Your task to perform on an android device: add a contact in the contacts app Image 0: 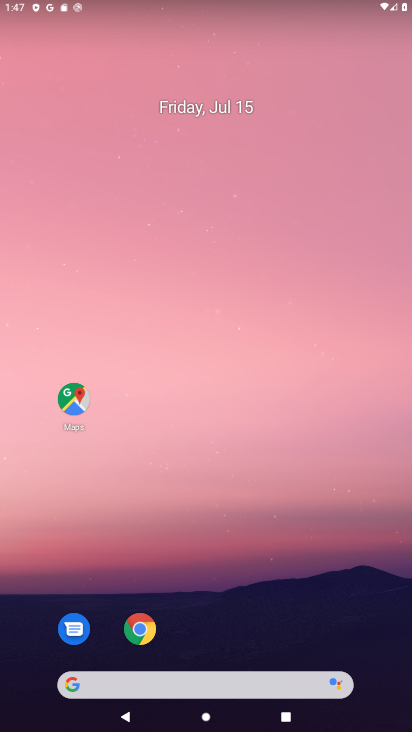
Step 0: drag from (189, 608) to (209, 146)
Your task to perform on an android device: add a contact in the contacts app Image 1: 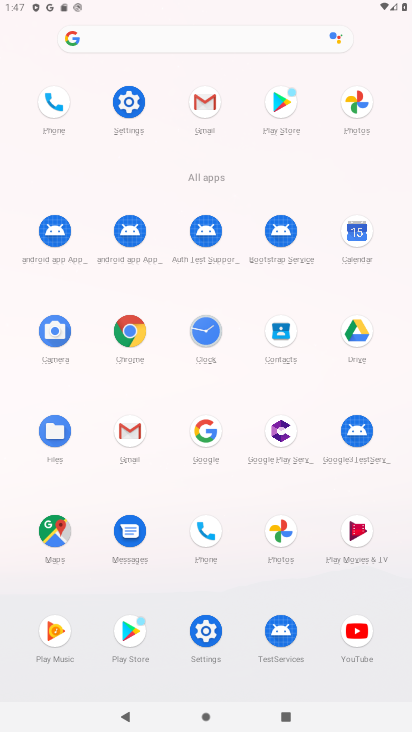
Step 1: click (276, 348)
Your task to perform on an android device: add a contact in the contacts app Image 2: 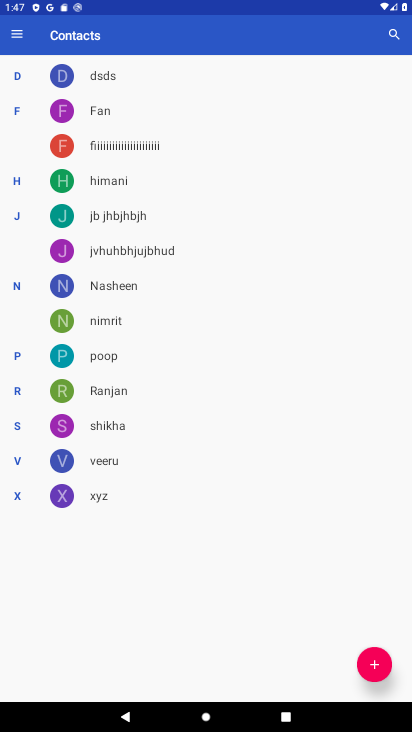
Step 2: click (377, 668)
Your task to perform on an android device: add a contact in the contacts app Image 3: 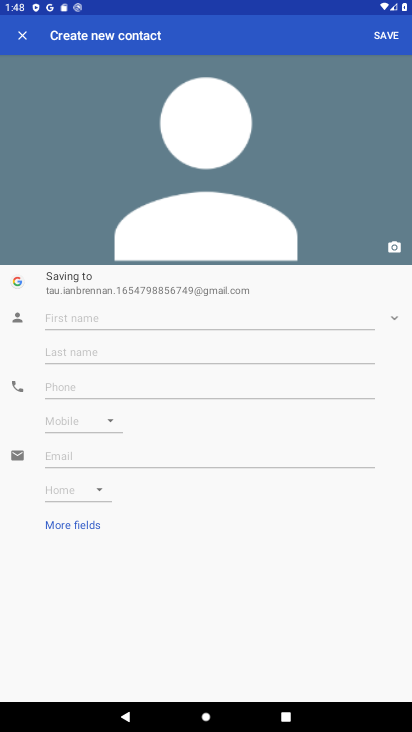
Step 3: click (224, 311)
Your task to perform on an android device: add a contact in the contacts app Image 4: 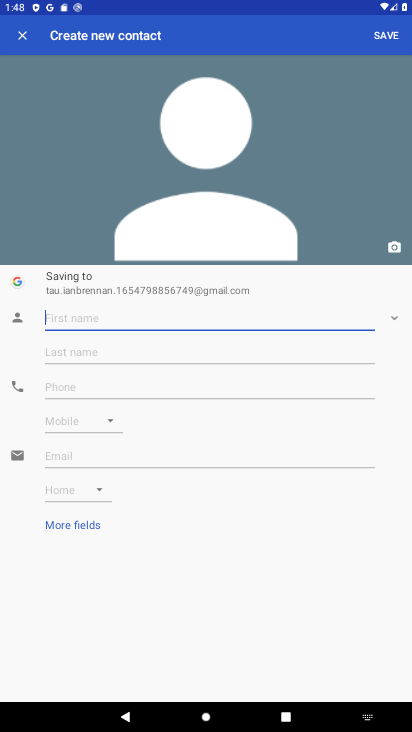
Step 4: type "Raman"
Your task to perform on an android device: add a contact in the contacts app Image 5: 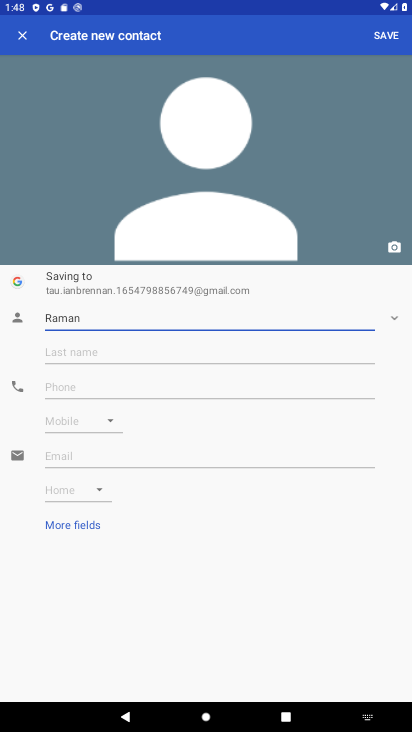
Step 5: click (139, 352)
Your task to perform on an android device: add a contact in the contacts app Image 6: 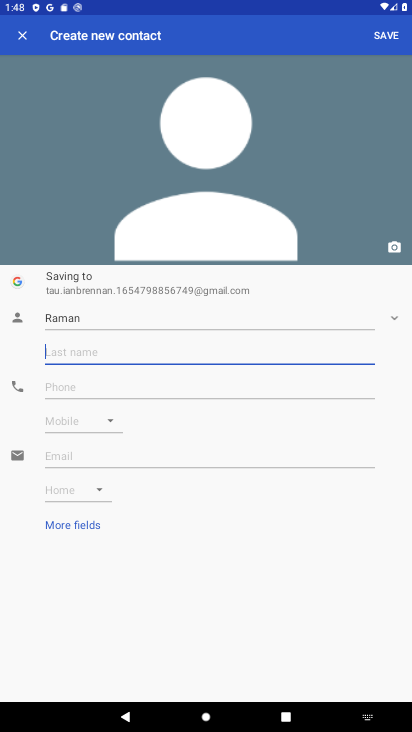
Step 6: type "Sharma"
Your task to perform on an android device: add a contact in the contacts app Image 7: 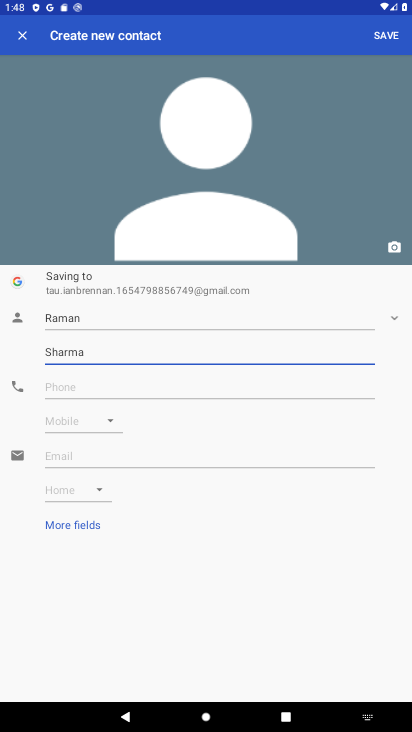
Step 7: click (75, 385)
Your task to perform on an android device: add a contact in the contacts app Image 8: 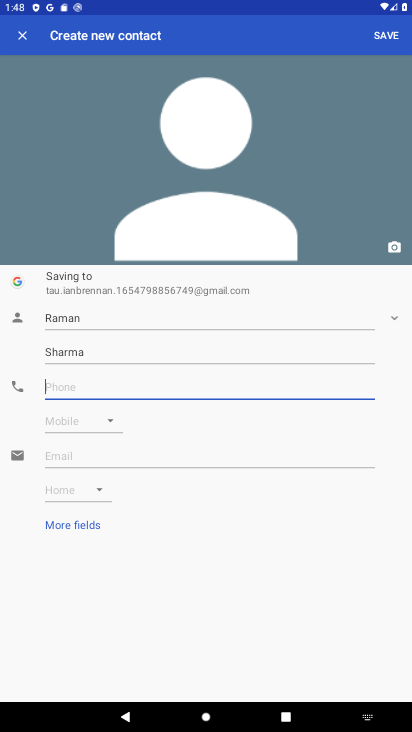
Step 8: type "7887788788"
Your task to perform on an android device: add a contact in the contacts app Image 9: 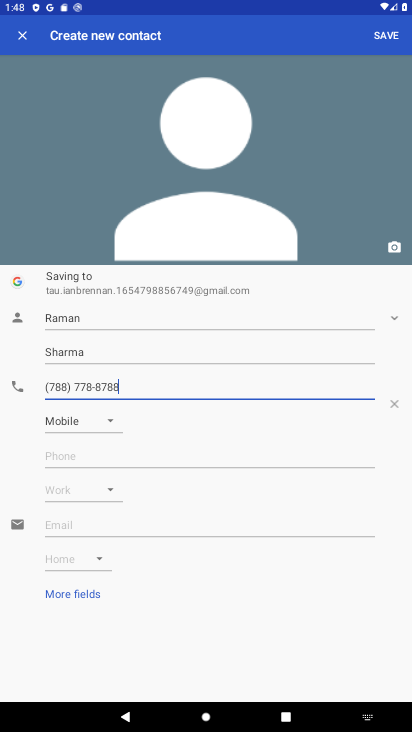
Step 9: click (386, 33)
Your task to perform on an android device: add a contact in the contacts app Image 10: 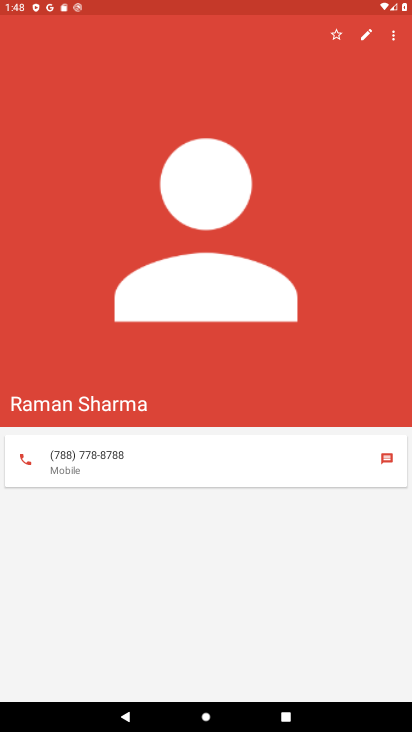
Step 10: task complete